Your task to perform on an android device: add a label to a message in the gmail app Image 0: 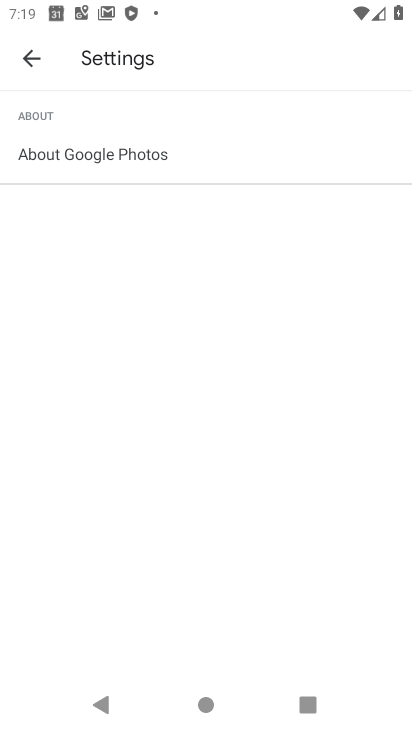
Step 0: press home button
Your task to perform on an android device: add a label to a message in the gmail app Image 1: 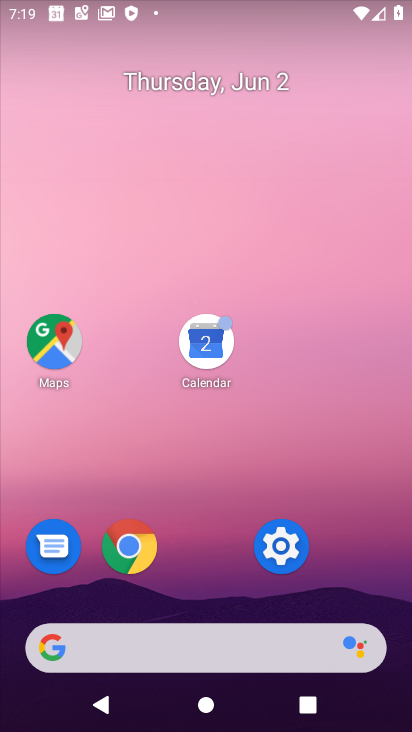
Step 1: drag from (270, 678) to (235, 277)
Your task to perform on an android device: add a label to a message in the gmail app Image 2: 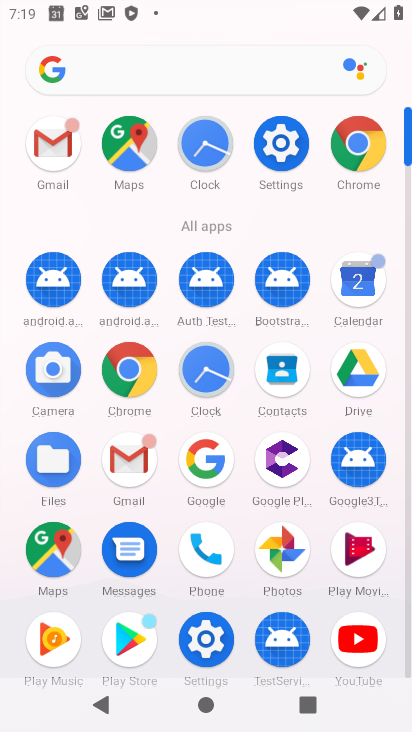
Step 2: drag from (52, 160) to (328, 553)
Your task to perform on an android device: add a label to a message in the gmail app Image 3: 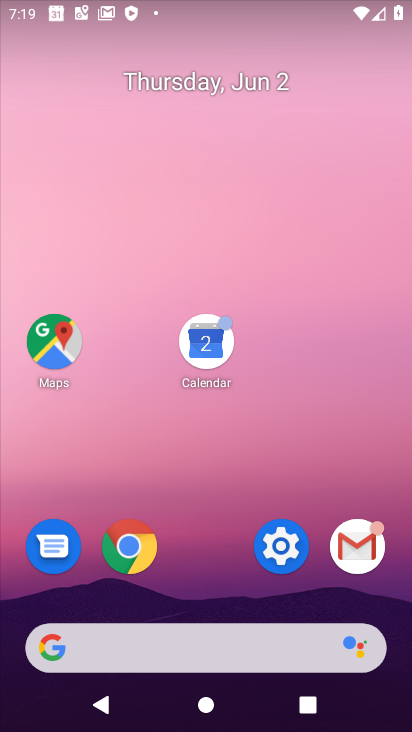
Step 3: click (349, 558)
Your task to perform on an android device: add a label to a message in the gmail app Image 4: 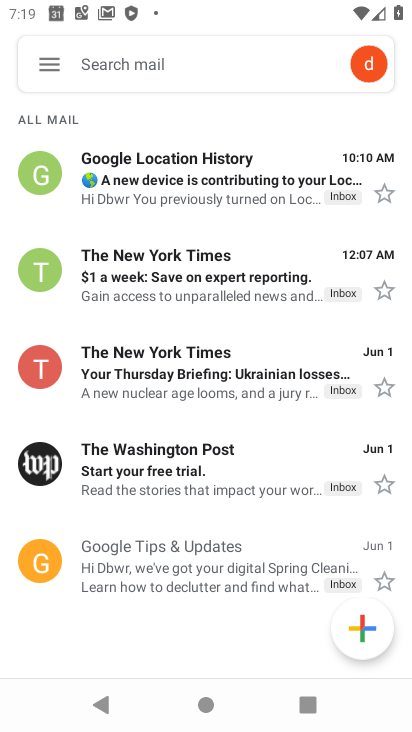
Step 4: click (47, 80)
Your task to perform on an android device: add a label to a message in the gmail app Image 5: 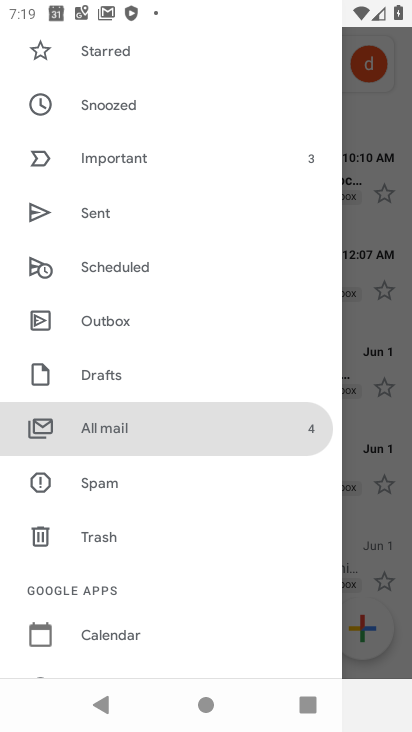
Step 5: drag from (162, 549) to (194, 286)
Your task to perform on an android device: add a label to a message in the gmail app Image 6: 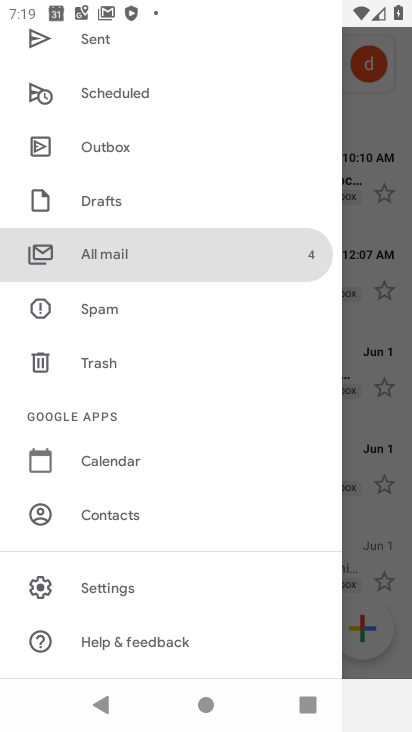
Step 6: click (117, 597)
Your task to perform on an android device: add a label to a message in the gmail app Image 7: 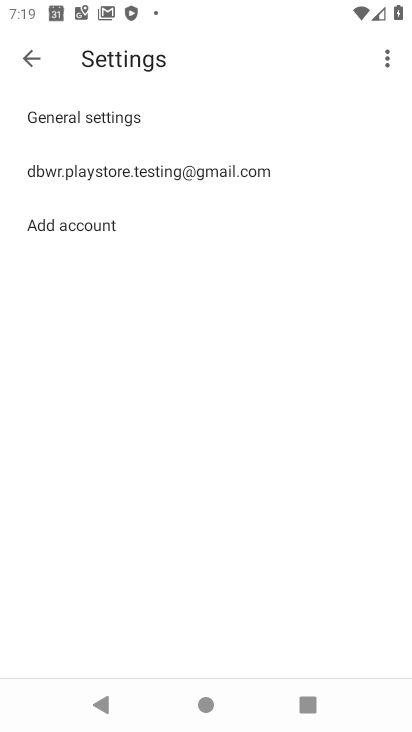
Step 7: click (91, 183)
Your task to perform on an android device: add a label to a message in the gmail app Image 8: 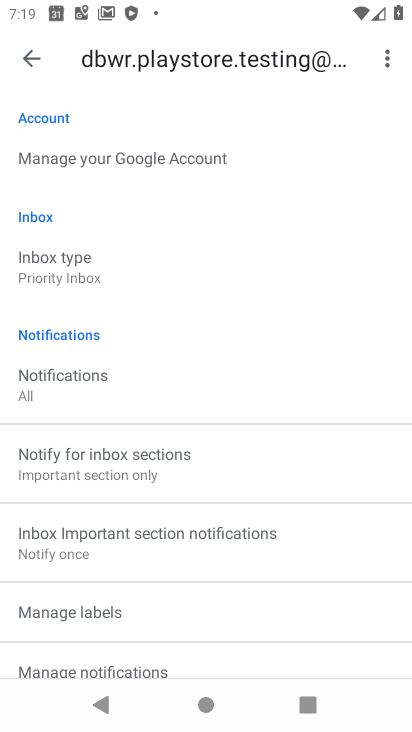
Step 8: click (94, 616)
Your task to perform on an android device: add a label to a message in the gmail app Image 9: 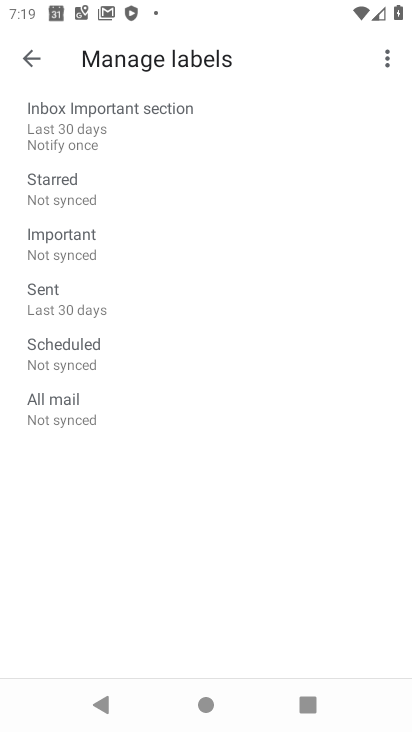
Step 9: click (134, 192)
Your task to perform on an android device: add a label to a message in the gmail app Image 10: 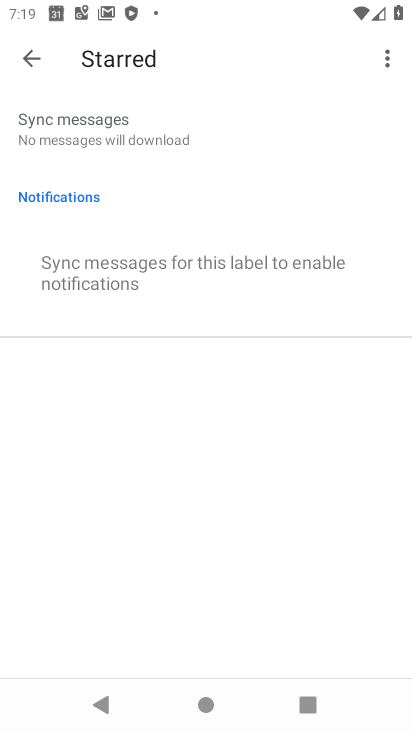
Step 10: task complete